Your task to perform on an android device: open wifi settings Image 0: 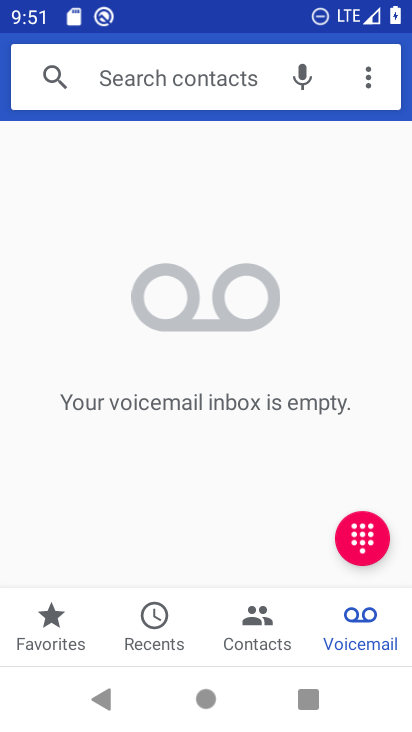
Step 0: press home button
Your task to perform on an android device: open wifi settings Image 1: 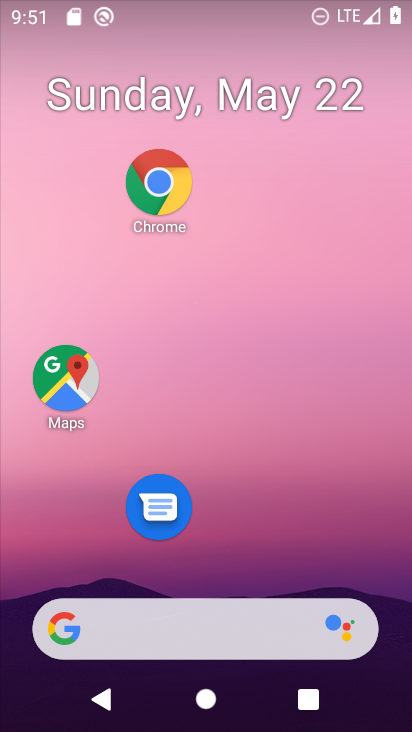
Step 1: drag from (258, 690) to (353, 16)
Your task to perform on an android device: open wifi settings Image 2: 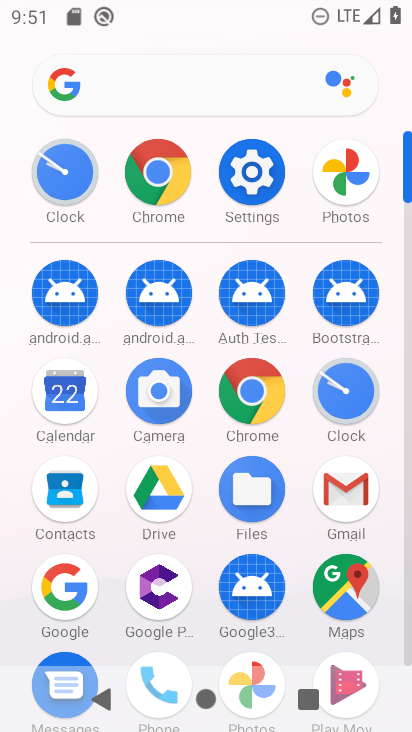
Step 2: click (251, 166)
Your task to perform on an android device: open wifi settings Image 3: 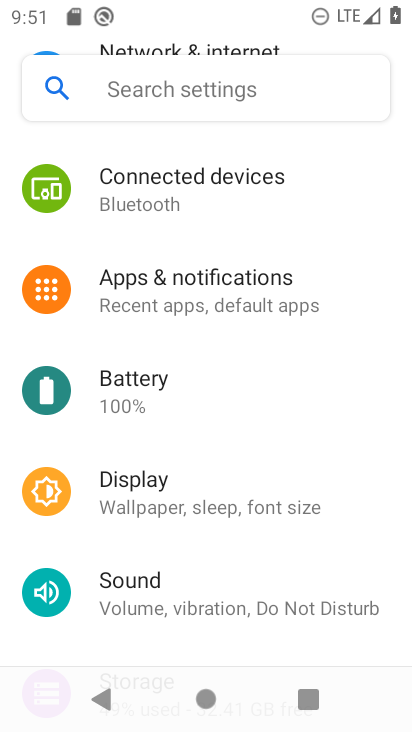
Step 3: drag from (285, 159) to (214, 711)
Your task to perform on an android device: open wifi settings Image 4: 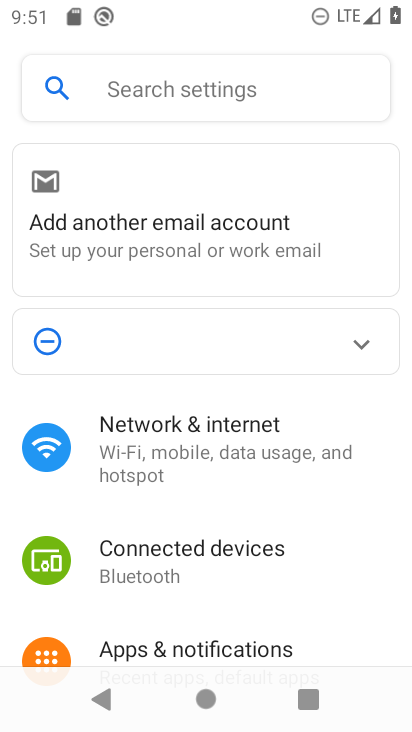
Step 4: click (254, 420)
Your task to perform on an android device: open wifi settings Image 5: 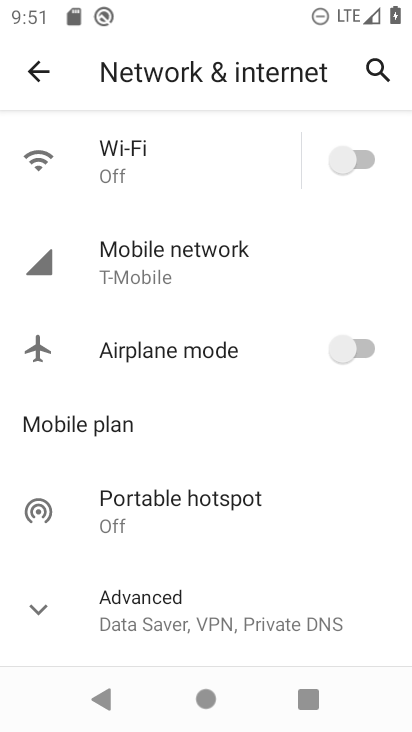
Step 5: click (163, 158)
Your task to perform on an android device: open wifi settings Image 6: 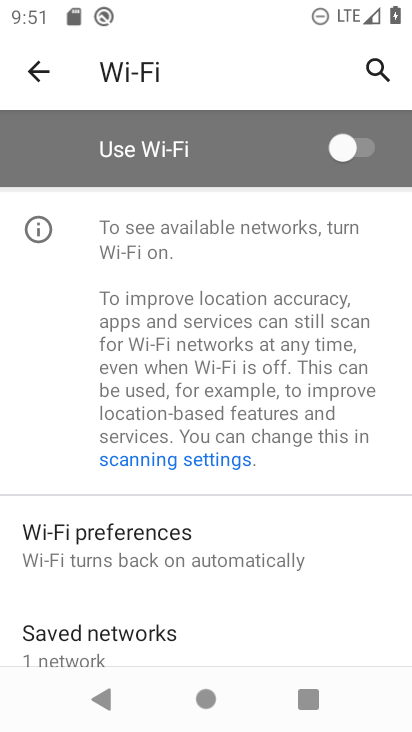
Step 6: task complete